Your task to perform on an android device: move a message to another label in the gmail app Image 0: 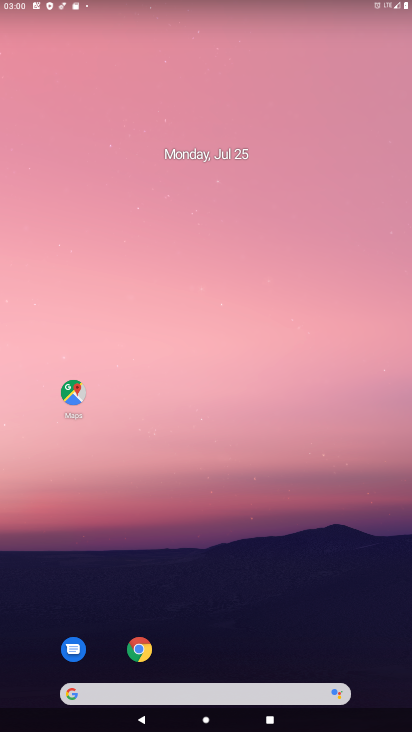
Step 0: drag from (375, 672) to (336, 107)
Your task to perform on an android device: move a message to another label in the gmail app Image 1: 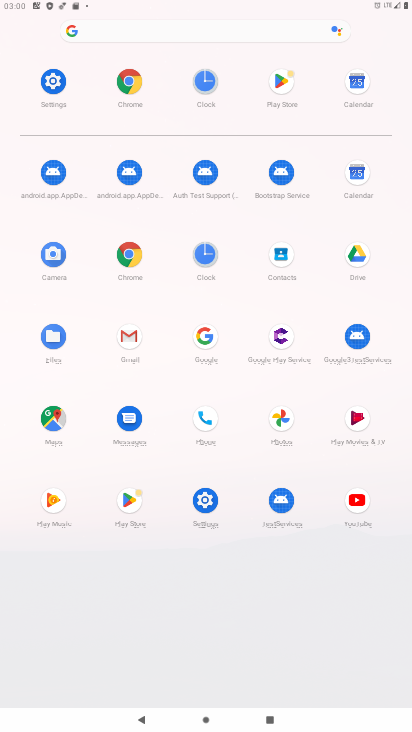
Step 1: click (127, 336)
Your task to perform on an android device: move a message to another label in the gmail app Image 2: 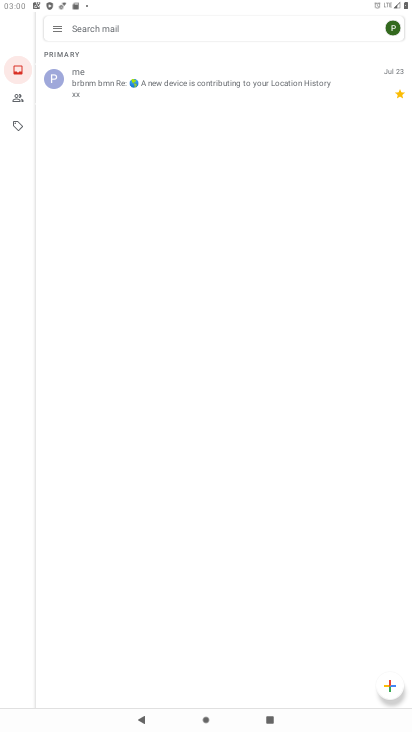
Step 2: click (229, 83)
Your task to perform on an android device: move a message to another label in the gmail app Image 3: 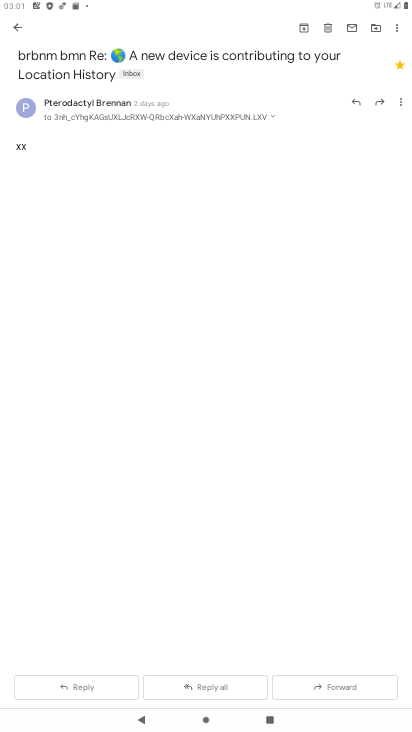
Step 3: click (393, 29)
Your task to perform on an android device: move a message to another label in the gmail app Image 4: 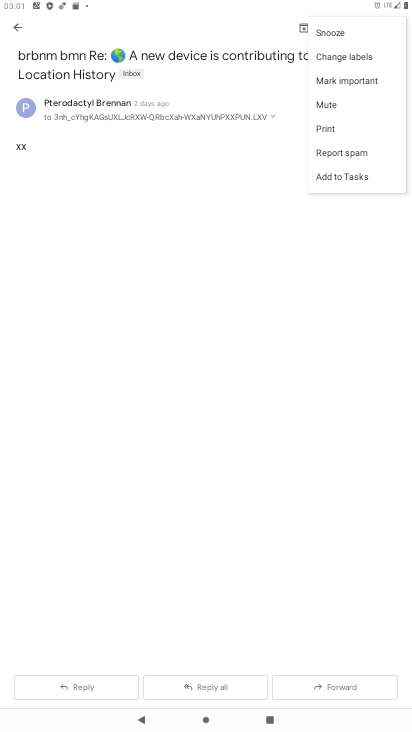
Step 4: task complete